Your task to perform on an android device: snooze an email in the gmail app Image 0: 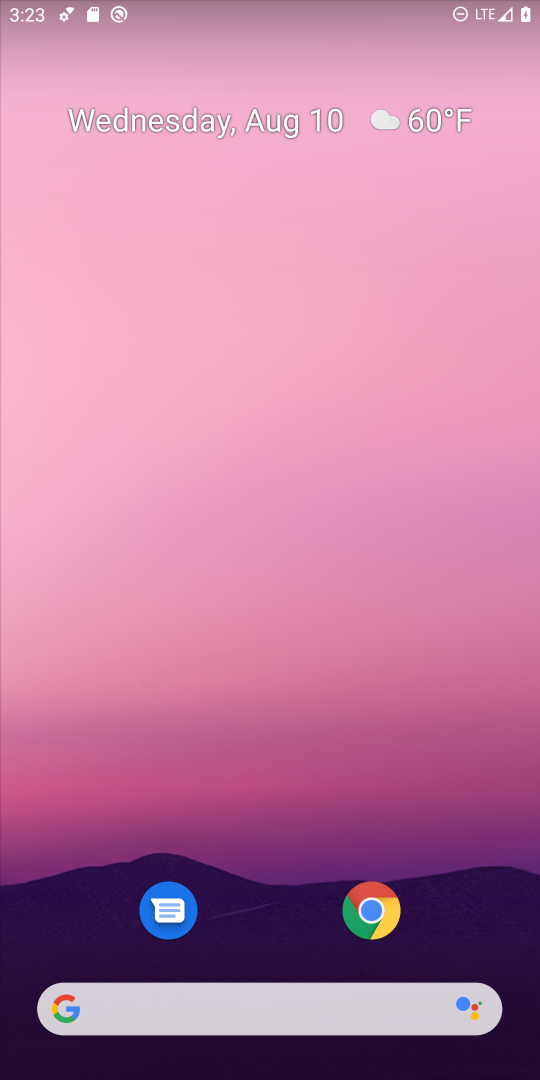
Step 0: drag from (306, 893) to (359, 38)
Your task to perform on an android device: snooze an email in the gmail app Image 1: 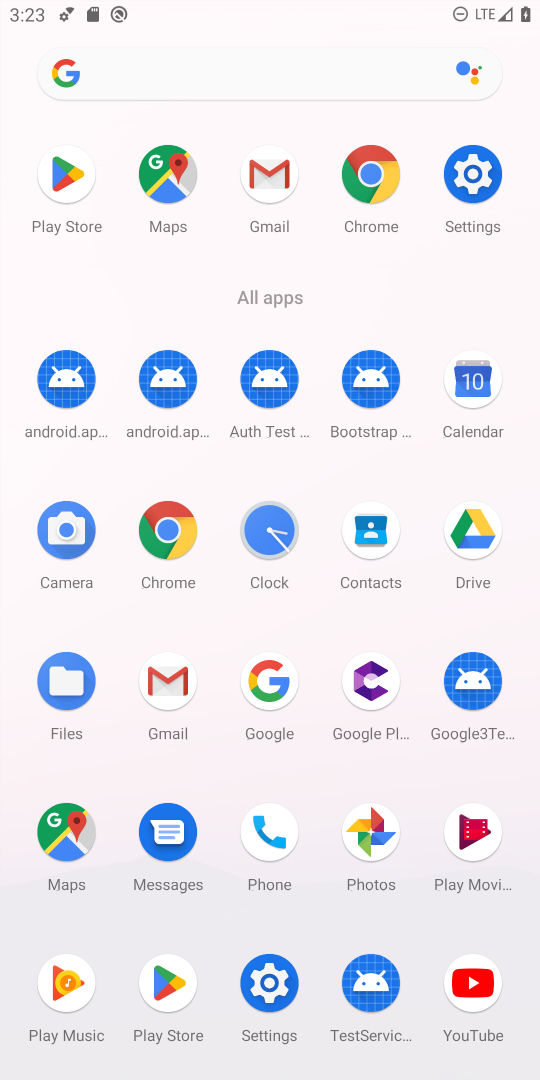
Step 1: click (271, 178)
Your task to perform on an android device: snooze an email in the gmail app Image 2: 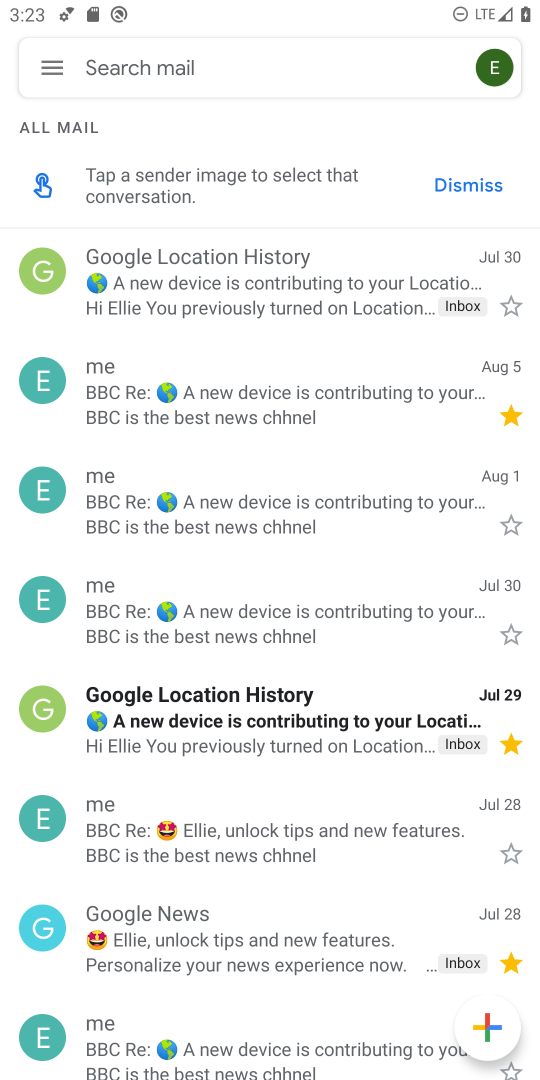
Step 2: click (249, 276)
Your task to perform on an android device: snooze an email in the gmail app Image 3: 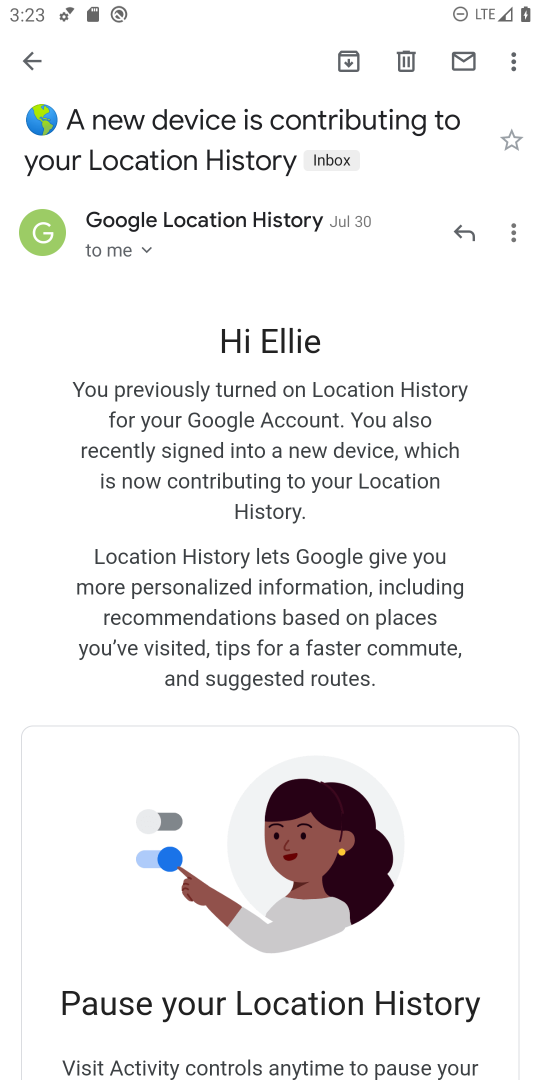
Step 3: click (515, 51)
Your task to perform on an android device: snooze an email in the gmail app Image 4: 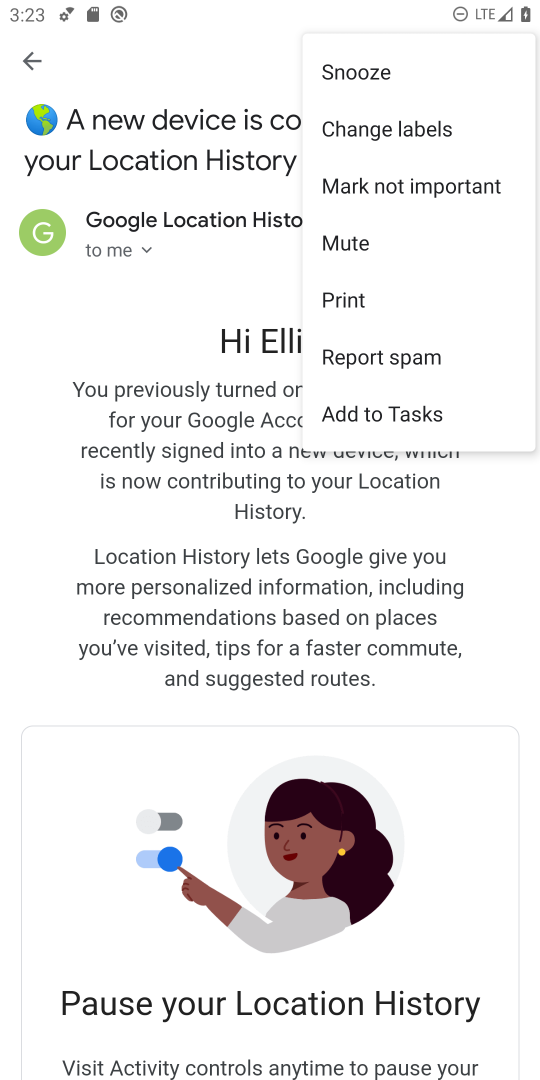
Step 4: click (354, 84)
Your task to perform on an android device: snooze an email in the gmail app Image 5: 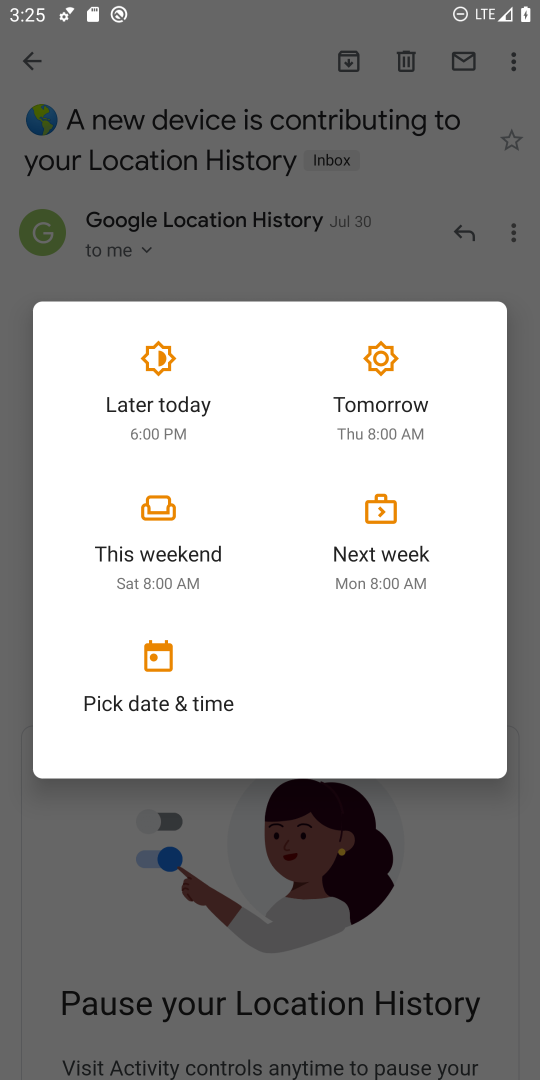
Step 5: task complete